Your task to perform on an android device: Open accessibility settings Image 0: 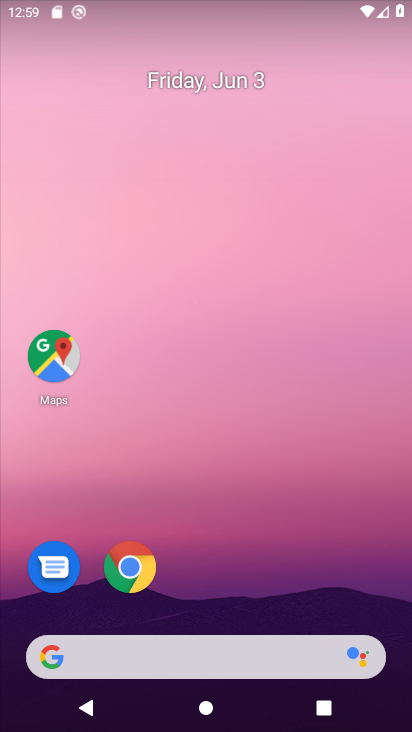
Step 0: drag from (274, 587) to (223, 222)
Your task to perform on an android device: Open accessibility settings Image 1: 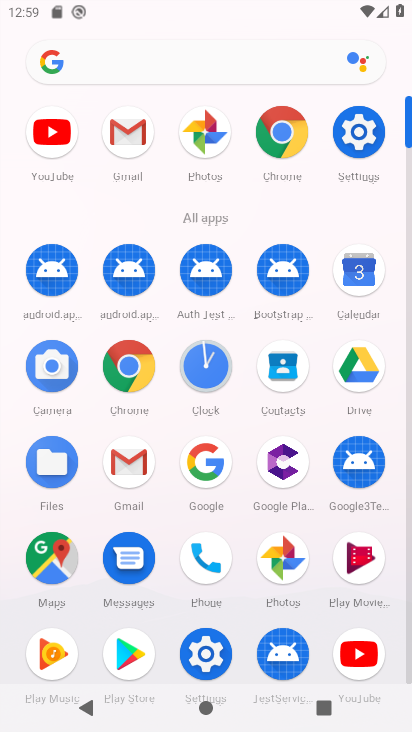
Step 1: click (350, 128)
Your task to perform on an android device: Open accessibility settings Image 2: 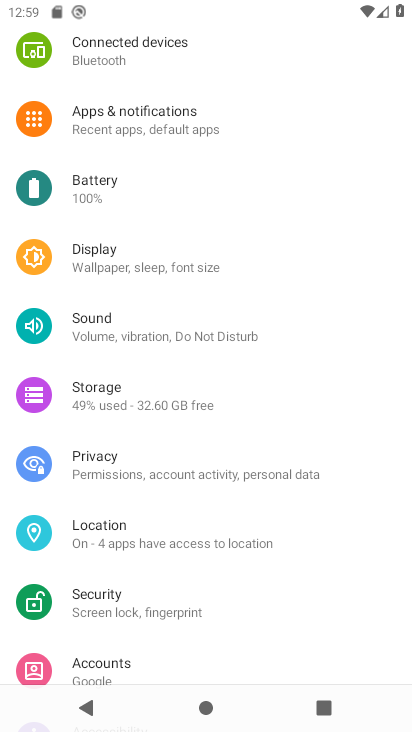
Step 2: drag from (192, 645) to (241, 233)
Your task to perform on an android device: Open accessibility settings Image 3: 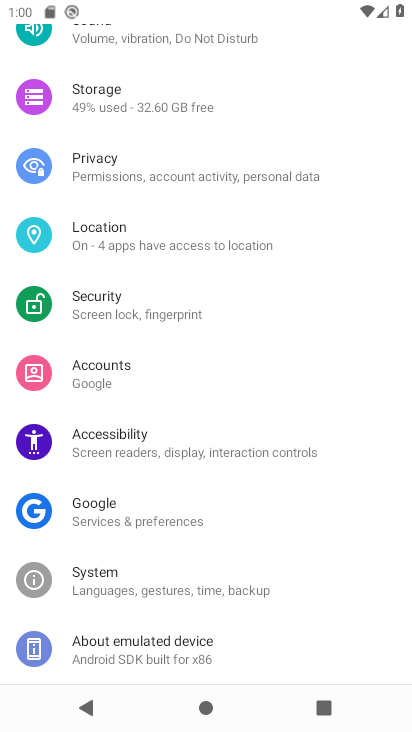
Step 3: click (138, 444)
Your task to perform on an android device: Open accessibility settings Image 4: 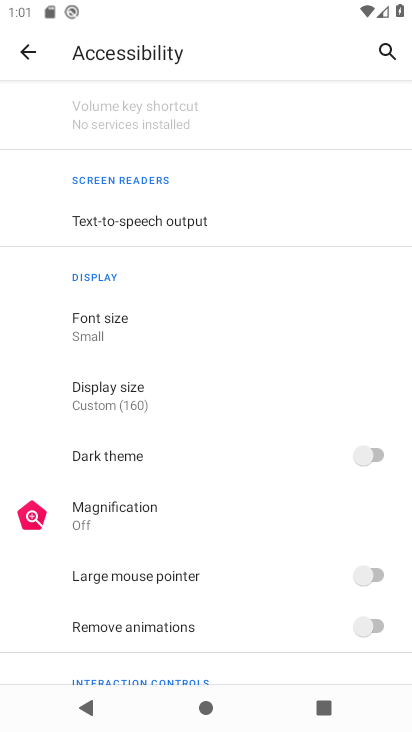
Step 4: task complete